Your task to perform on an android device: Go to ESPN.com Image 0: 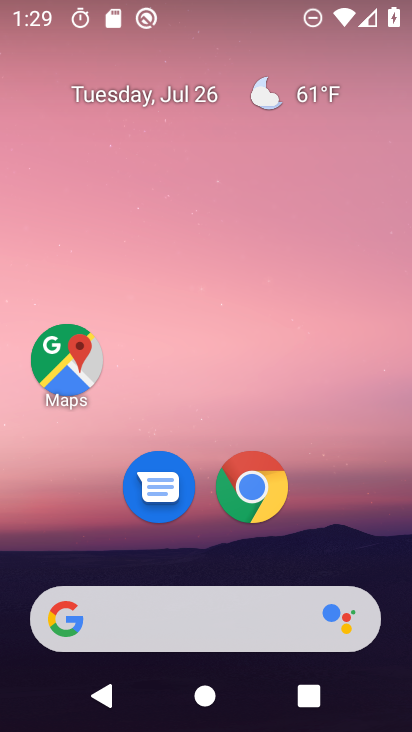
Step 0: click (274, 502)
Your task to perform on an android device: Go to ESPN.com Image 1: 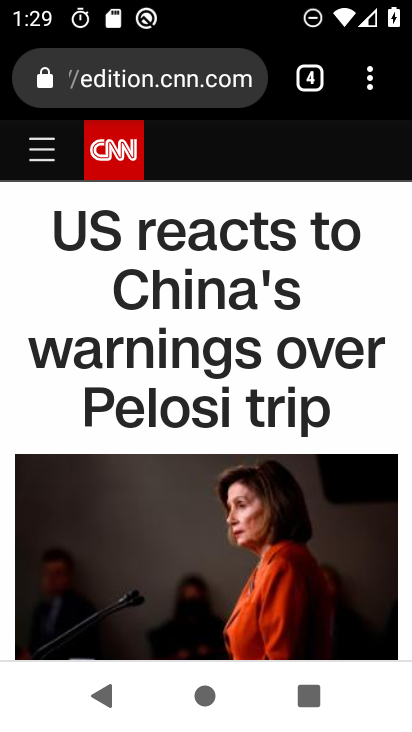
Step 1: click (311, 78)
Your task to perform on an android device: Go to ESPN.com Image 2: 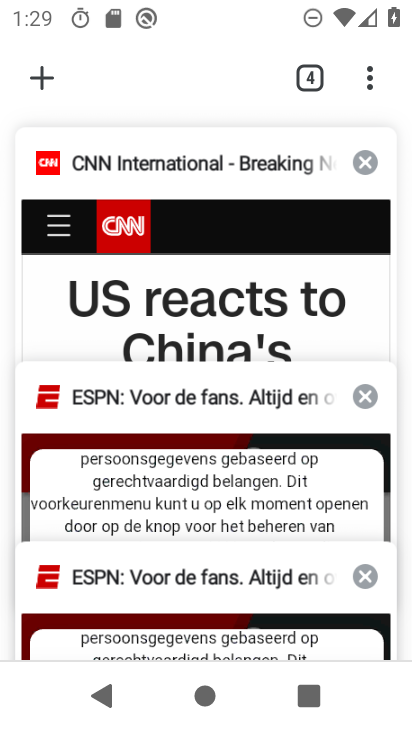
Step 2: click (176, 604)
Your task to perform on an android device: Go to ESPN.com Image 3: 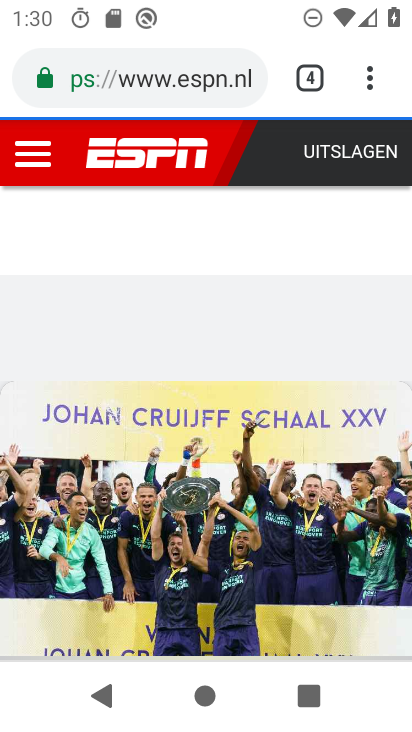
Step 3: task complete